Your task to perform on an android device: Search for pizza restaurants on Maps Image 0: 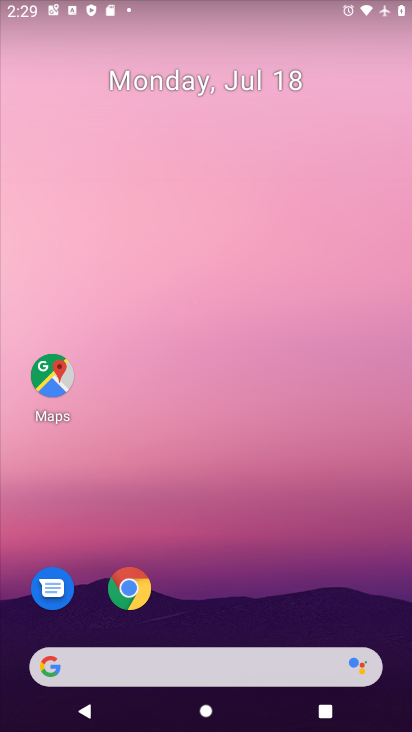
Step 0: drag from (242, 699) to (304, 338)
Your task to perform on an android device: Search for pizza restaurants on Maps Image 1: 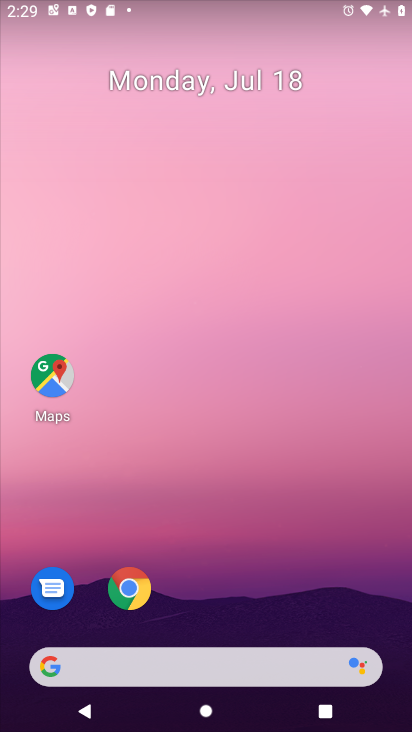
Step 1: drag from (186, 678) to (296, 107)
Your task to perform on an android device: Search for pizza restaurants on Maps Image 2: 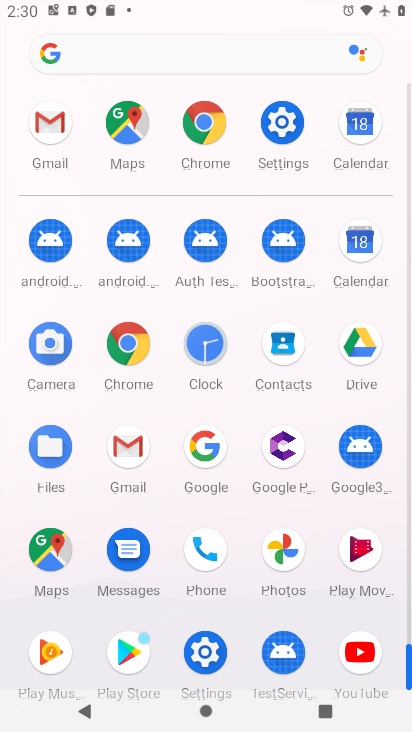
Step 2: click (68, 560)
Your task to perform on an android device: Search for pizza restaurants on Maps Image 3: 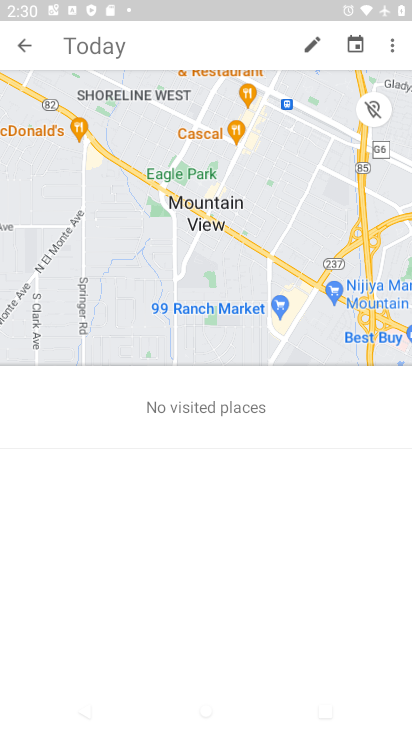
Step 3: click (19, 47)
Your task to perform on an android device: Search for pizza restaurants on Maps Image 4: 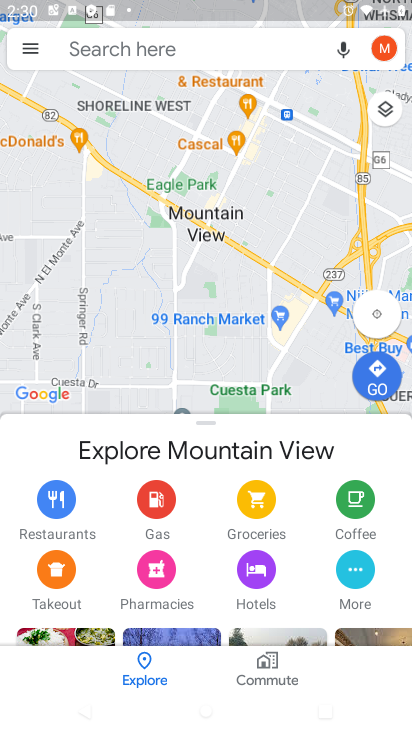
Step 4: click (174, 51)
Your task to perform on an android device: Search for pizza restaurants on Maps Image 5: 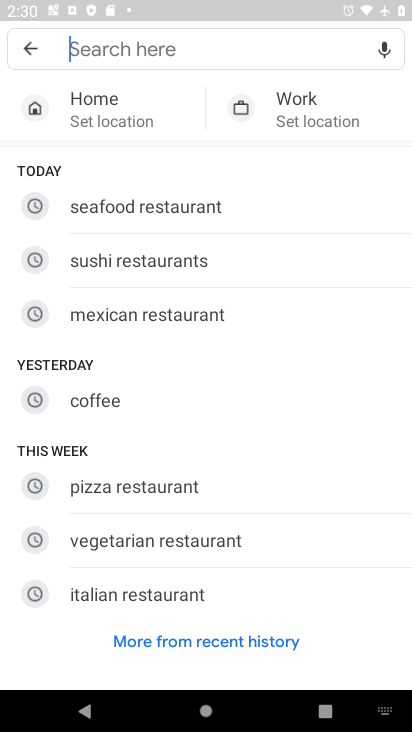
Step 5: click (178, 485)
Your task to perform on an android device: Search for pizza restaurants on Maps Image 6: 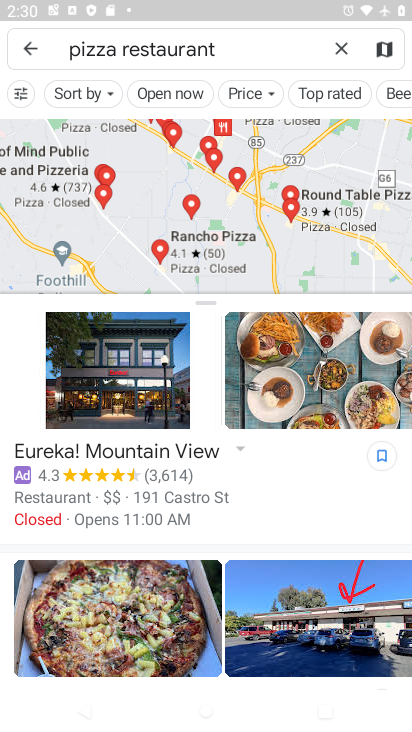
Step 6: task complete